Your task to perform on an android device: Go to Wikipedia Image 0: 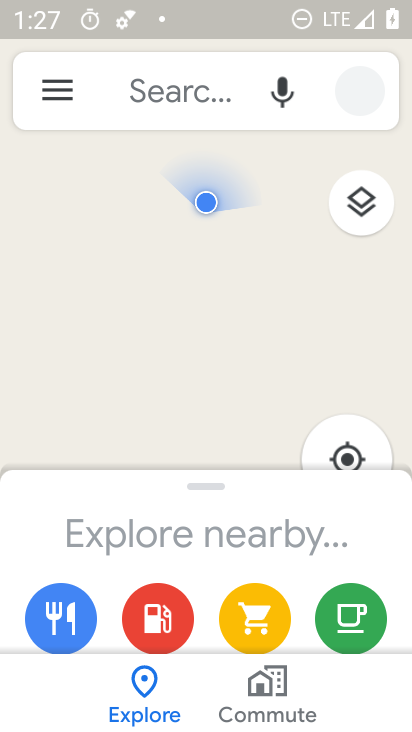
Step 0: press home button
Your task to perform on an android device: Go to Wikipedia Image 1: 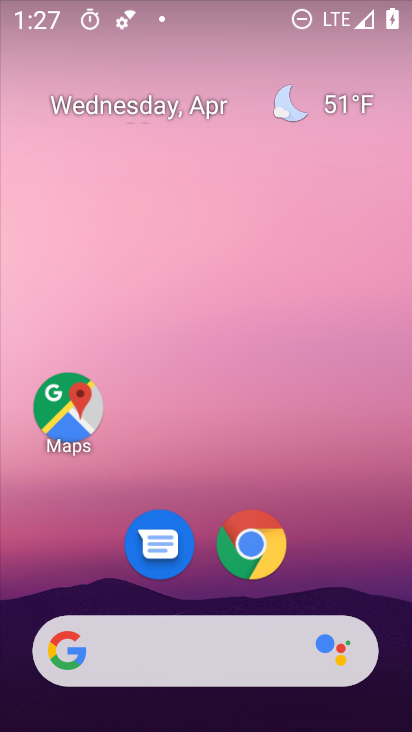
Step 1: drag from (319, 454) to (311, 102)
Your task to perform on an android device: Go to Wikipedia Image 2: 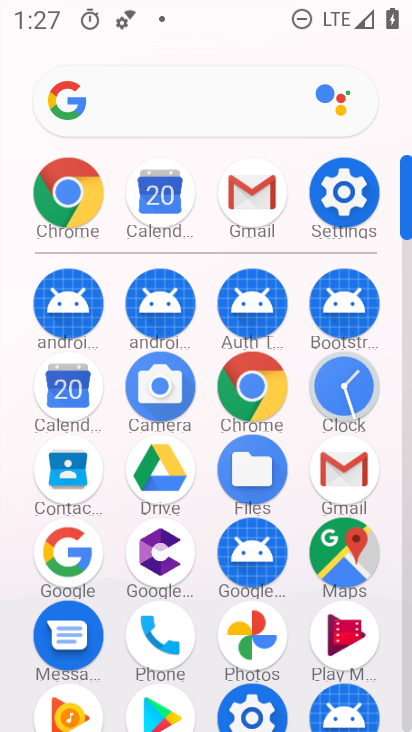
Step 2: click (256, 389)
Your task to perform on an android device: Go to Wikipedia Image 3: 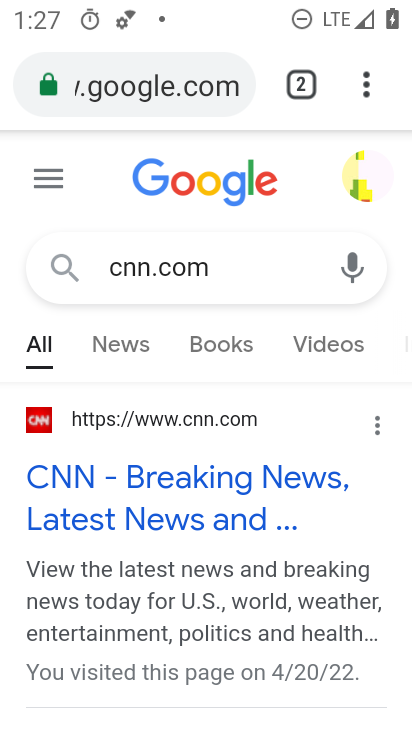
Step 3: press back button
Your task to perform on an android device: Go to Wikipedia Image 4: 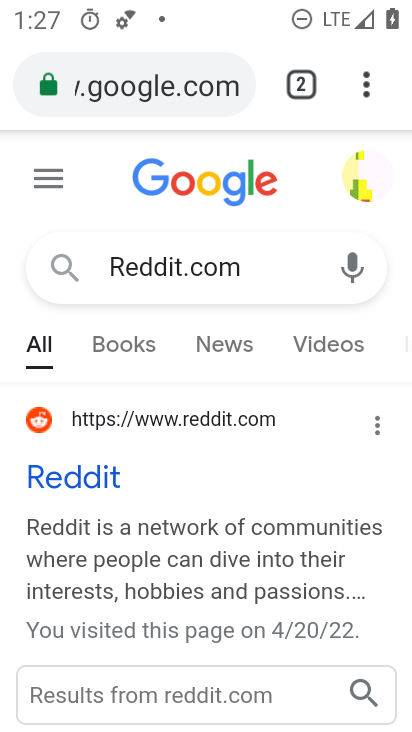
Step 4: press back button
Your task to perform on an android device: Go to Wikipedia Image 5: 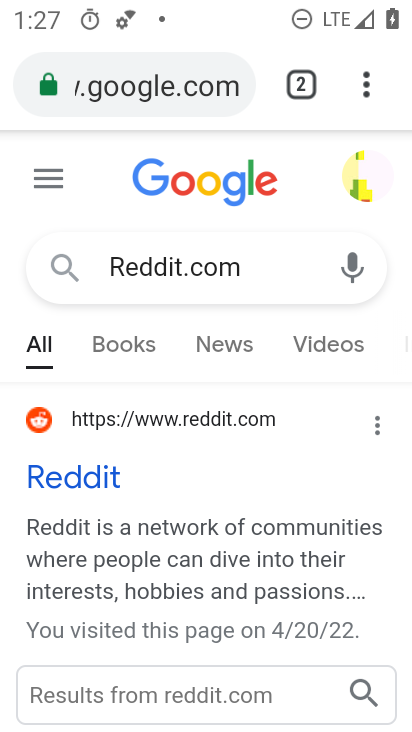
Step 5: press back button
Your task to perform on an android device: Go to Wikipedia Image 6: 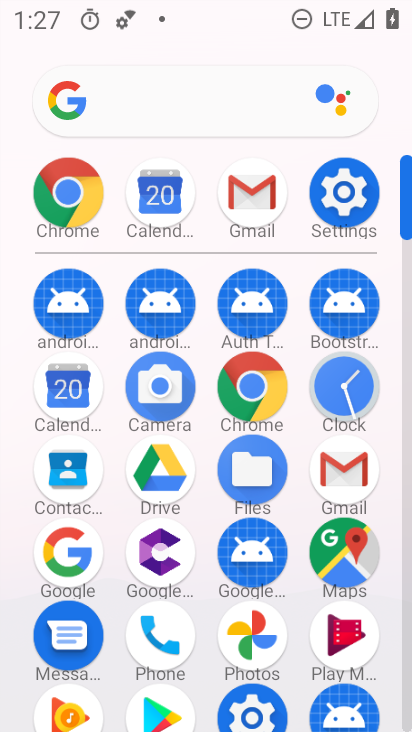
Step 6: click (247, 384)
Your task to perform on an android device: Go to Wikipedia Image 7: 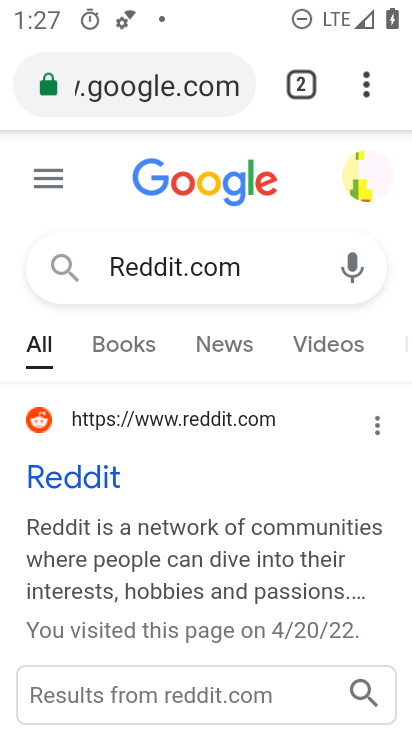
Step 7: click (273, 266)
Your task to perform on an android device: Go to Wikipedia Image 8: 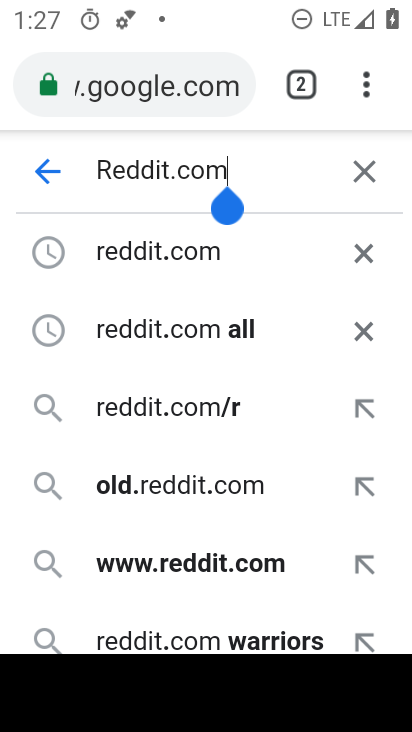
Step 8: click (365, 168)
Your task to perform on an android device: Go to Wikipedia Image 9: 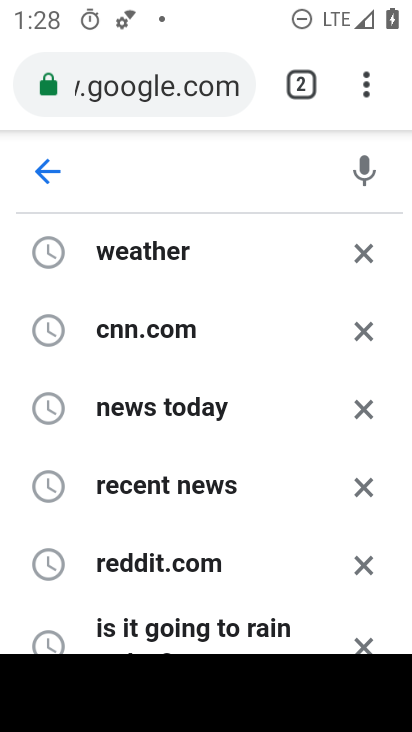
Step 9: type "wikipedia"
Your task to perform on an android device: Go to Wikipedia Image 10: 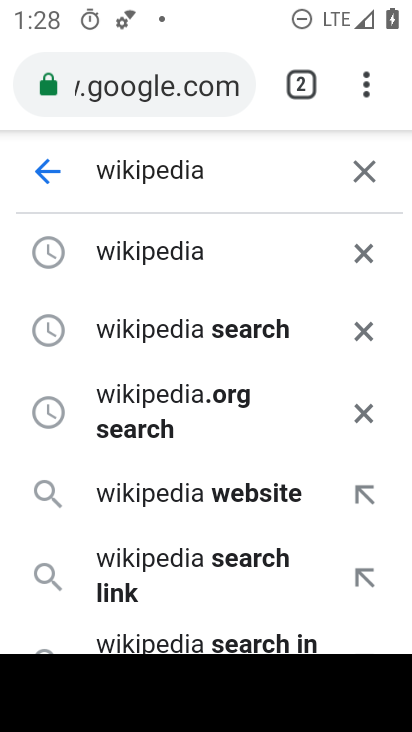
Step 10: click (174, 247)
Your task to perform on an android device: Go to Wikipedia Image 11: 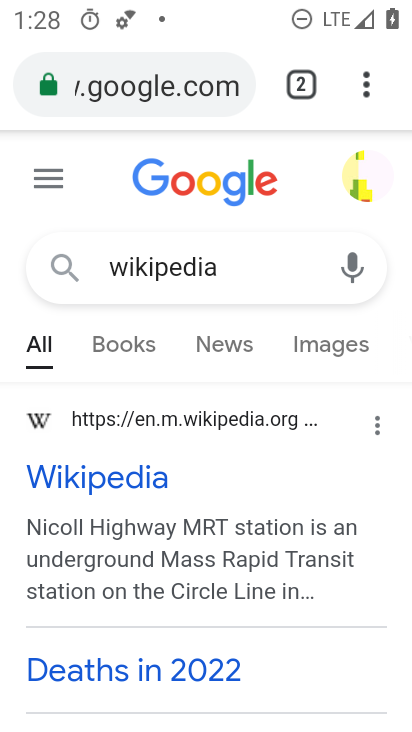
Step 11: click (89, 484)
Your task to perform on an android device: Go to Wikipedia Image 12: 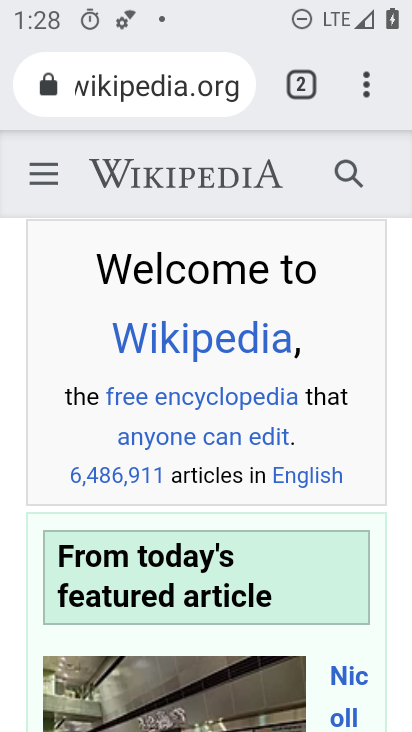
Step 12: task complete